Your task to perform on an android device: Search for "dell xps" on target, select the first entry, add it to the cart, then select checkout. Image 0: 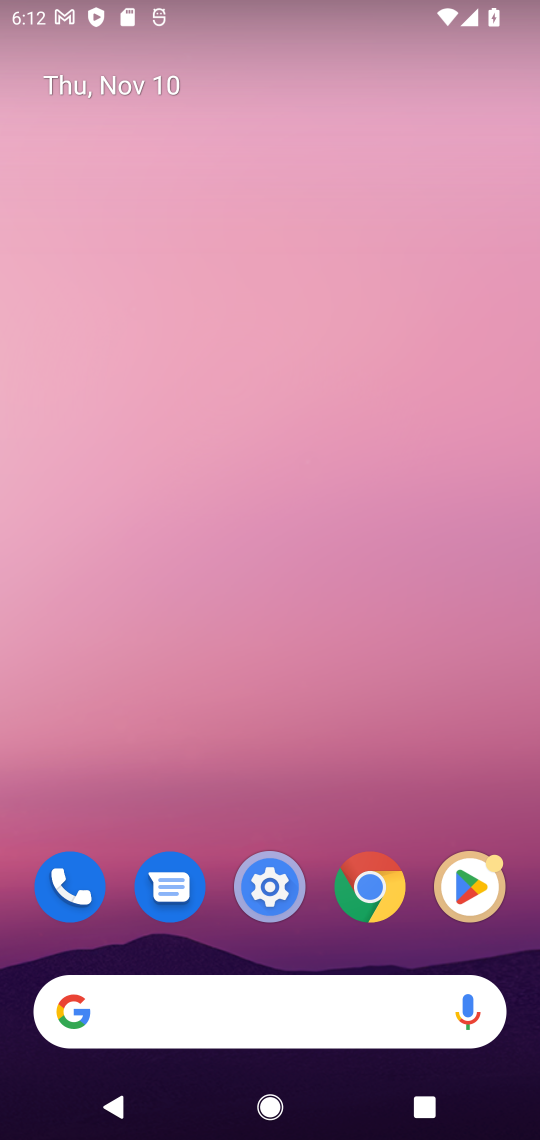
Step 0: click (317, 1012)
Your task to perform on an android device: Search for "dell xps" on target, select the first entry, add it to the cart, then select checkout. Image 1: 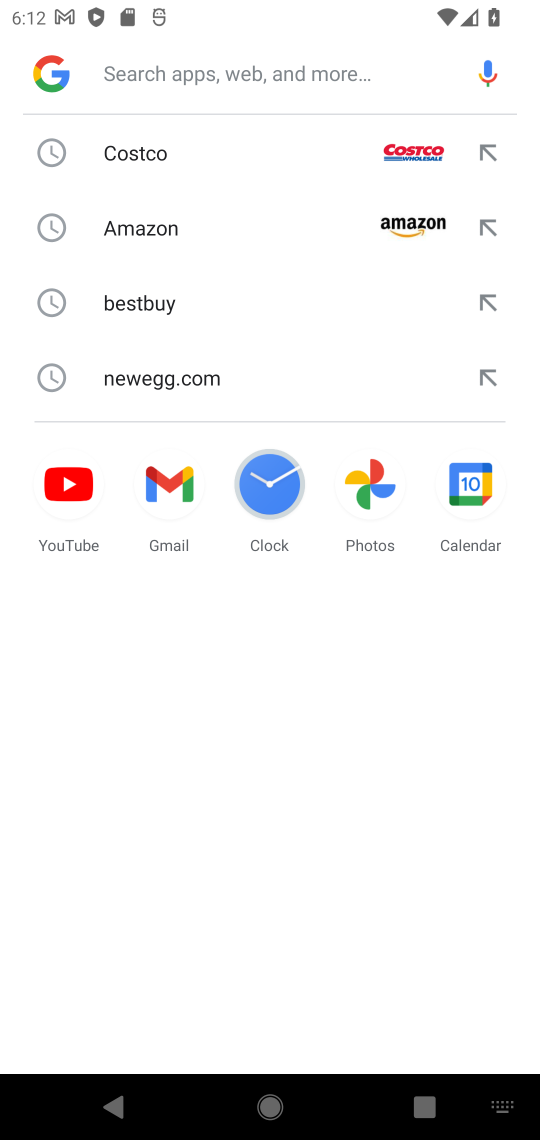
Step 1: type "target"
Your task to perform on an android device: Search for "dell xps" on target, select the first entry, add it to the cart, then select checkout. Image 2: 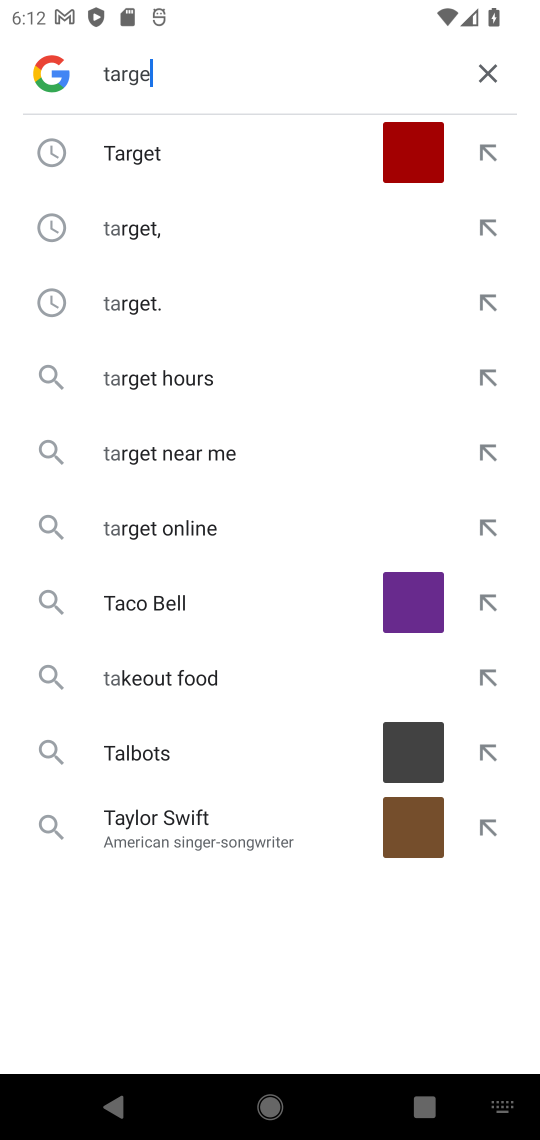
Step 2: type ""
Your task to perform on an android device: Search for "dell xps" on target, select the first entry, add it to the cart, then select checkout. Image 3: 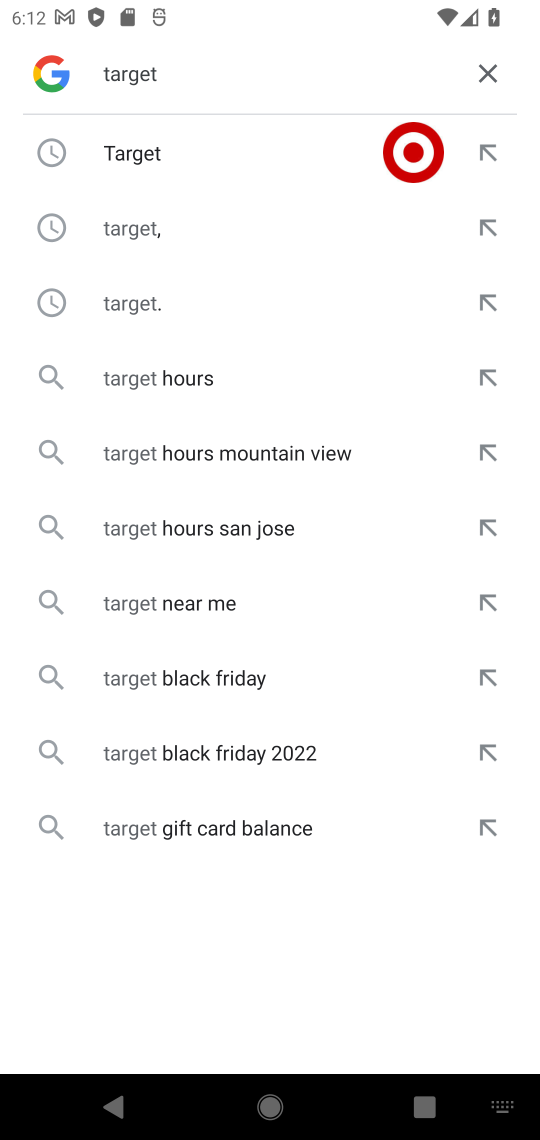
Step 3: click (158, 148)
Your task to perform on an android device: Search for "dell xps" on target, select the first entry, add it to the cart, then select checkout. Image 4: 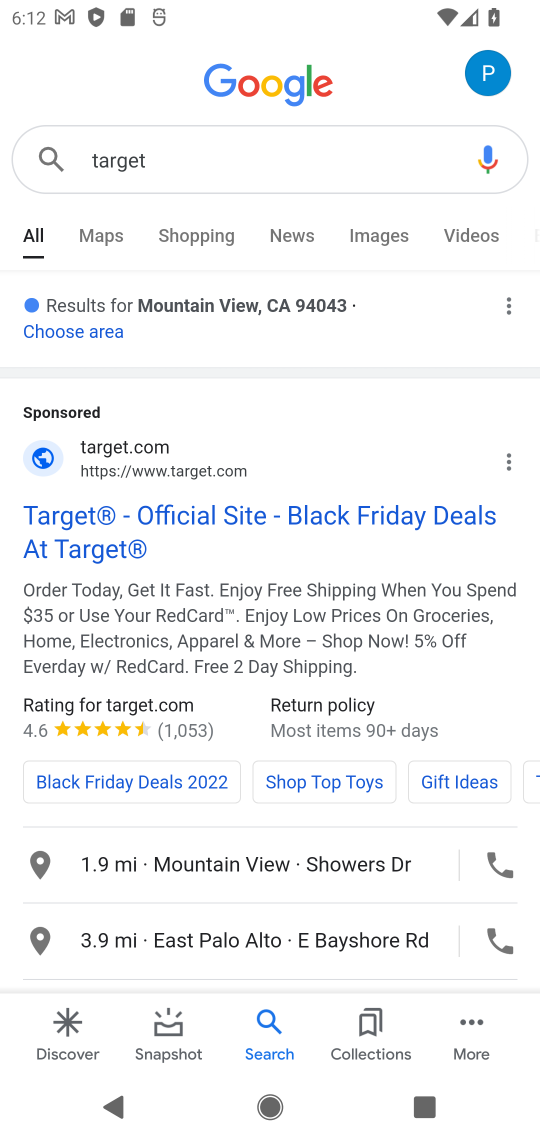
Step 4: click (67, 466)
Your task to perform on an android device: Search for "dell xps" on target, select the first entry, add it to the cart, then select checkout. Image 5: 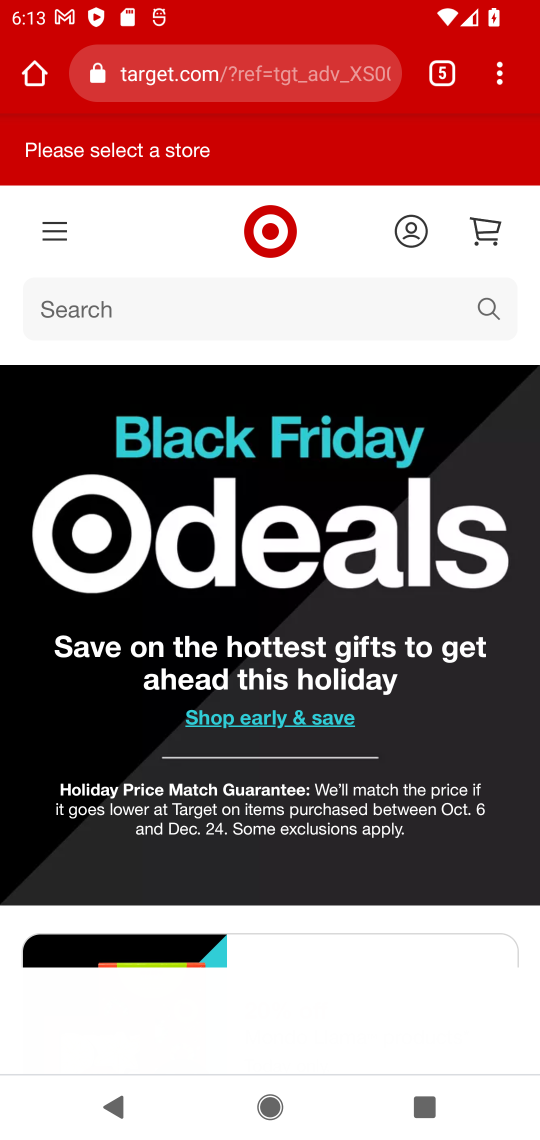
Step 5: click (88, 302)
Your task to perform on an android device: Search for "dell xps" on target, select the first entry, add it to the cart, then select checkout. Image 6: 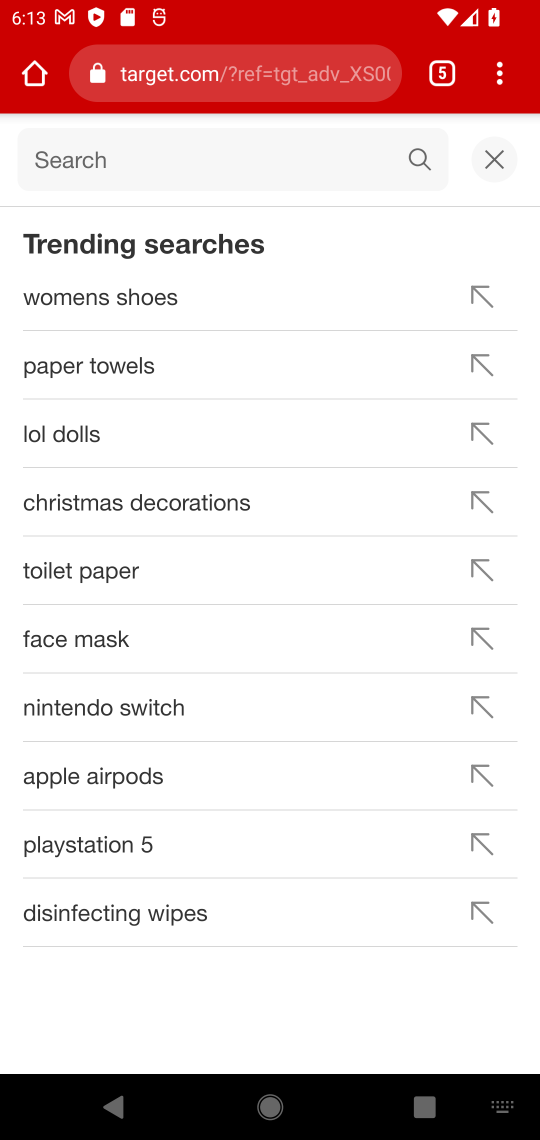
Step 6: type "dell xps"
Your task to perform on an android device: Search for "dell xps" on target, select the first entry, add it to the cart, then select checkout. Image 7: 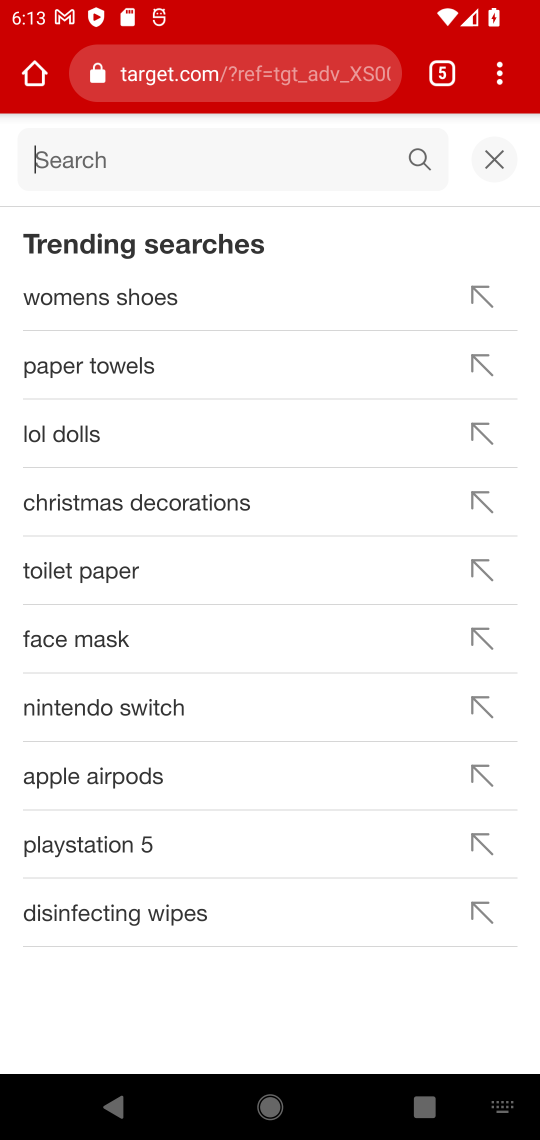
Step 7: type ""
Your task to perform on an android device: Search for "dell xps" on target, select the first entry, add it to the cart, then select checkout. Image 8: 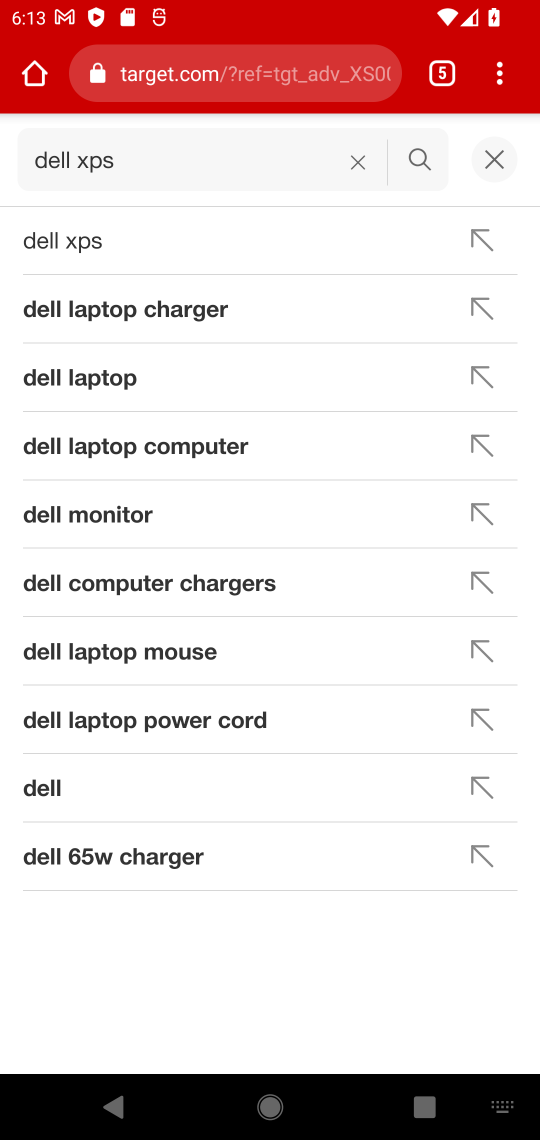
Step 8: click (81, 242)
Your task to perform on an android device: Search for "dell xps" on target, select the first entry, add it to the cart, then select checkout. Image 9: 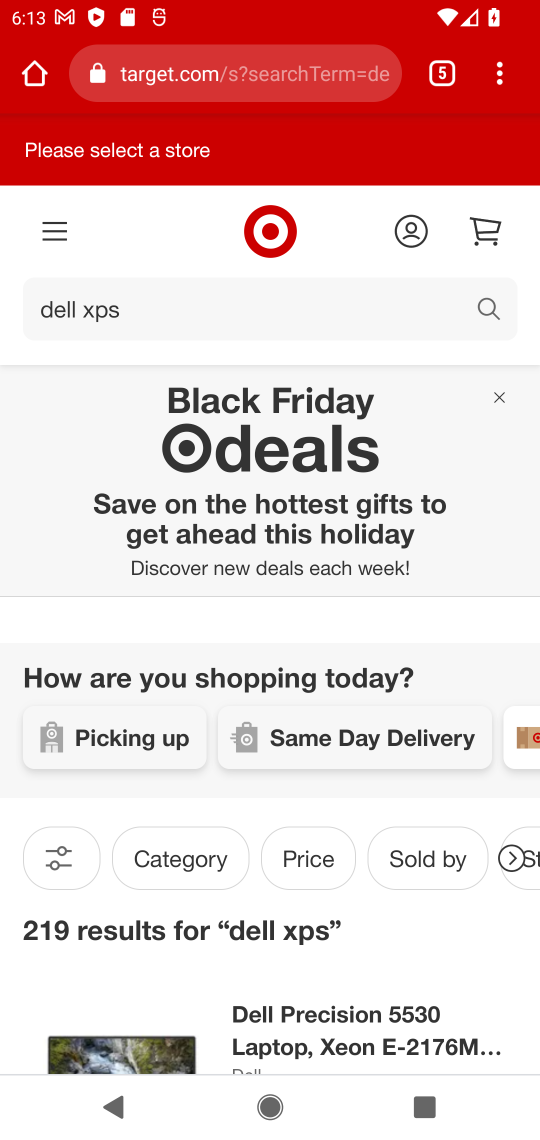
Step 9: drag from (408, 1013) to (294, 282)
Your task to perform on an android device: Search for "dell xps" on target, select the first entry, add it to the cart, then select checkout. Image 10: 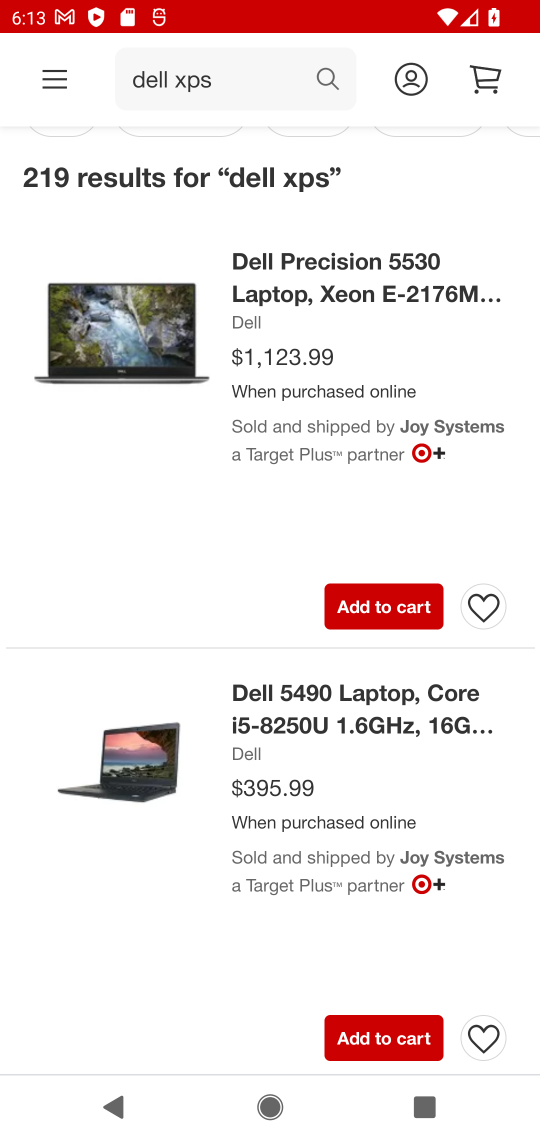
Step 10: click (384, 613)
Your task to perform on an android device: Search for "dell xps" on target, select the first entry, add it to the cart, then select checkout. Image 11: 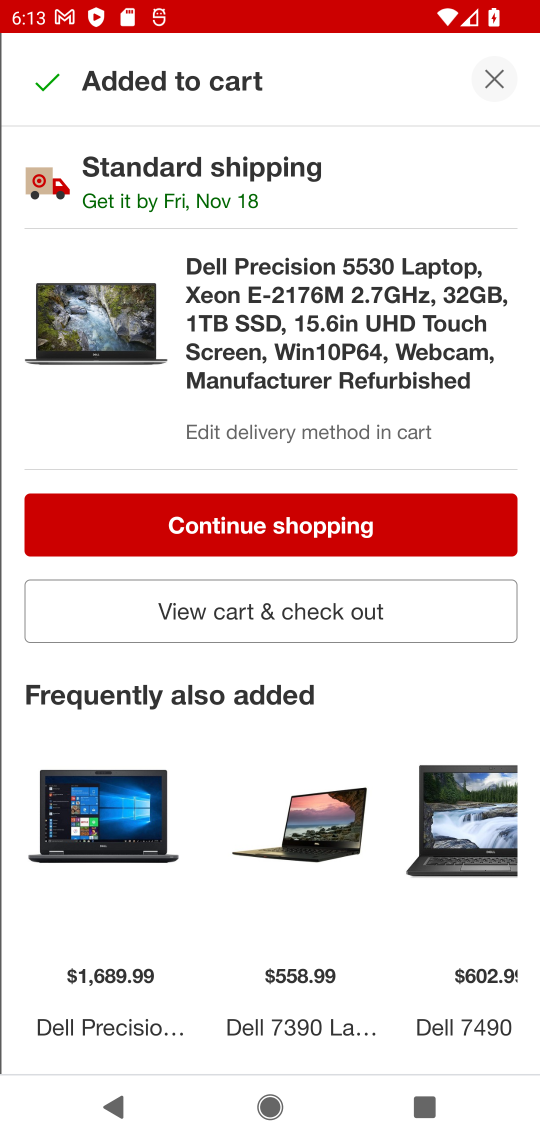
Step 11: click (490, 73)
Your task to perform on an android device: Search for "dell xps" on target, select the first entry, add it to the cart, then select checkout. Image 12: 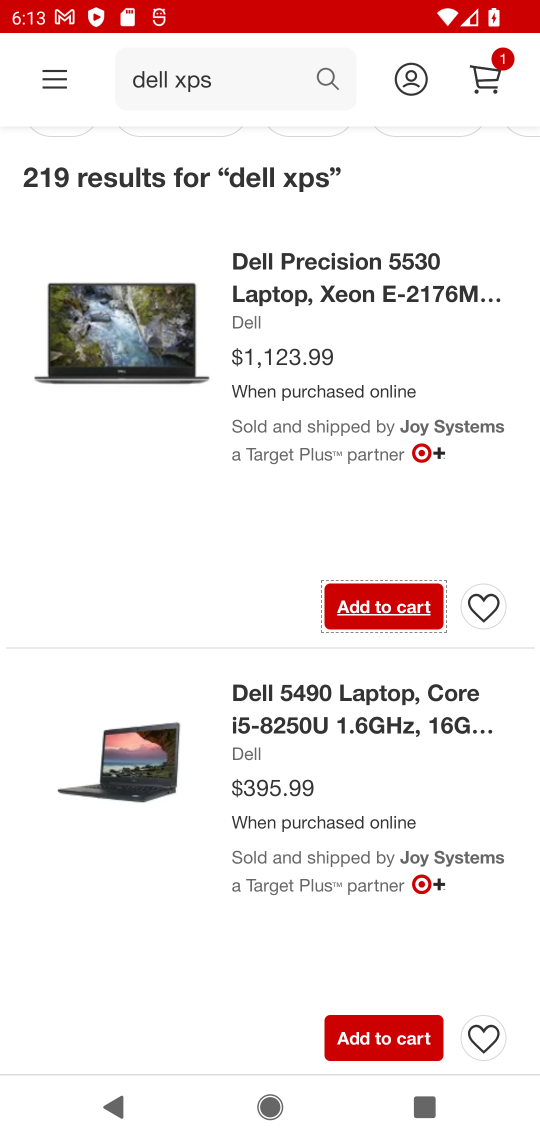
Step 12: click (491, 62)
Your task to perform on an android device: Search for "dell xps" on target, select the first entry, add it to the cart, then select checkout. Image 13: 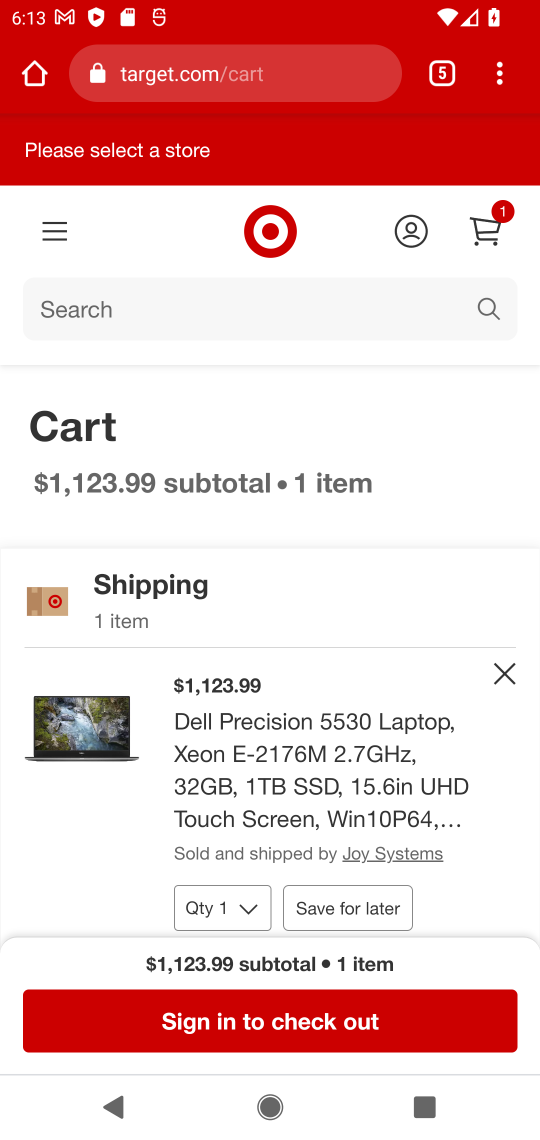
Step 13: click (268, 1018)
Your task to perform on an android device: Search for "dell xps" on target, select the first entry, add it to the cart, then select checkout. Image 14: 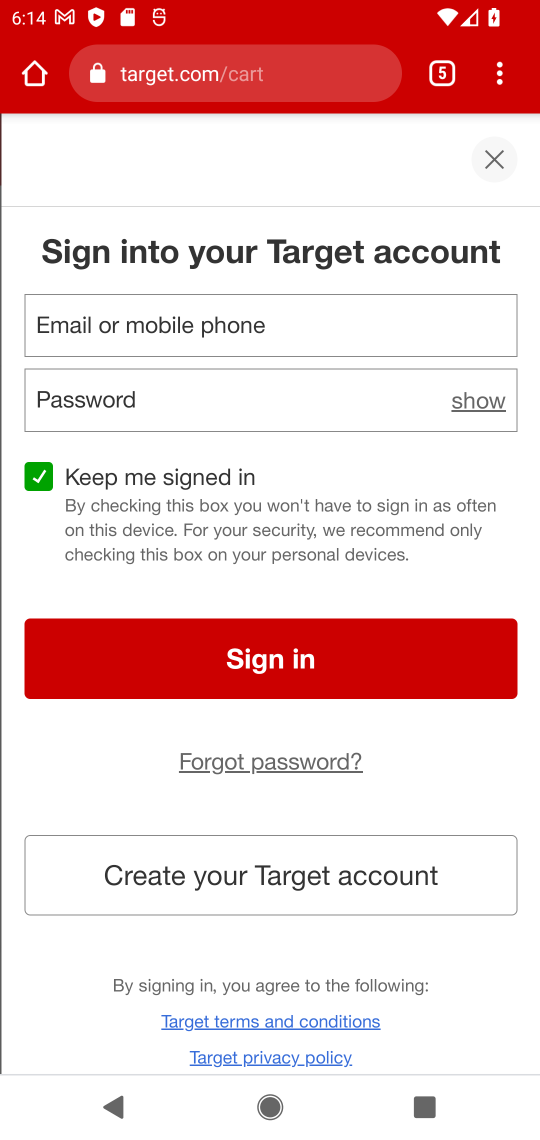
Step 14: task complete